Your task to perform on an android device: Open settings on Google Maps Image 0: 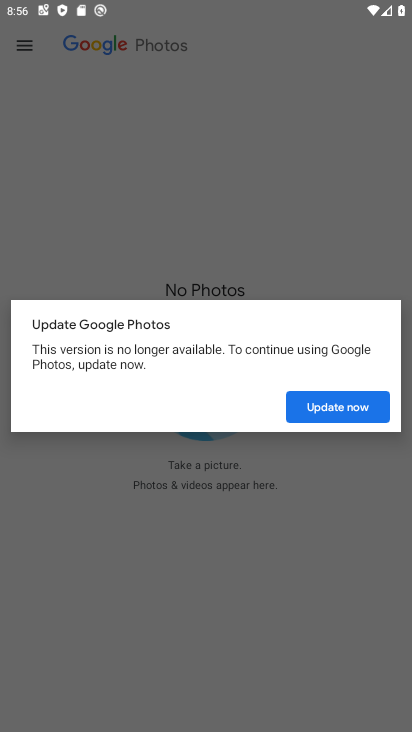
Step 0: press home button
Your task to perform on an android device: Open settings on Google Maps Image 1: 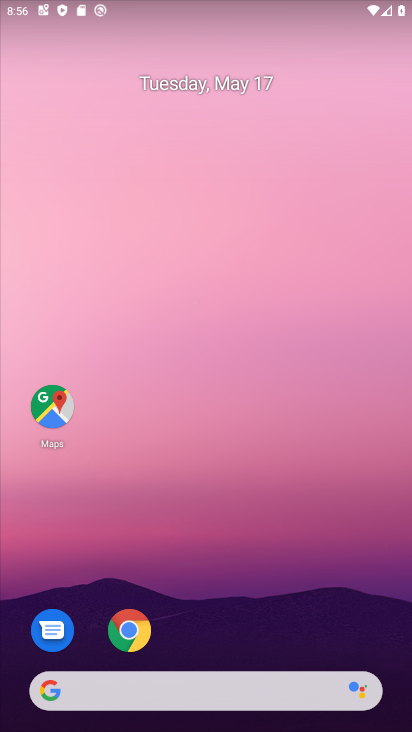
Step 1: click (42, 427)
Your task to perform on an android device: Open settings on Google Maps Image 2: 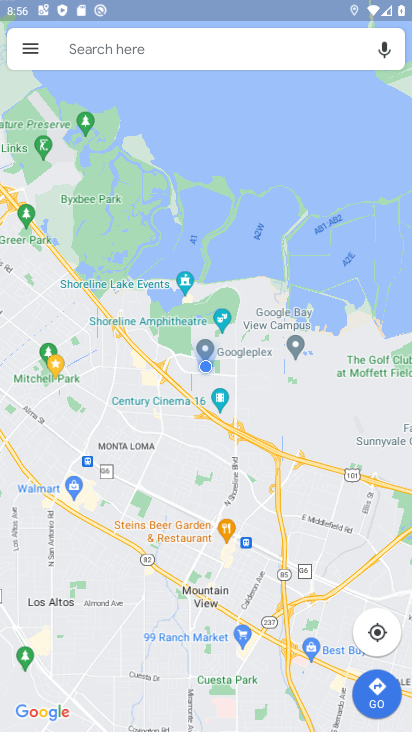
Step 2: click (29, 49)
Your task to perform on an android device: Open settings on Google Maps Image 3: 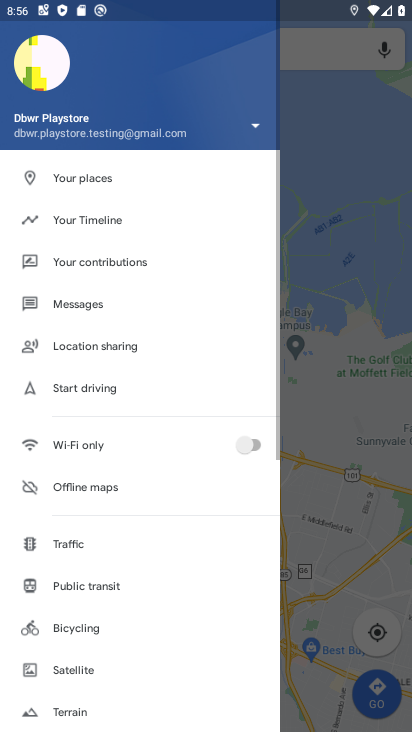
Step 3: drag from (108, 703) to (115, 299)
Your task to perform on an android device: Open settings on Google Maps Image 4: 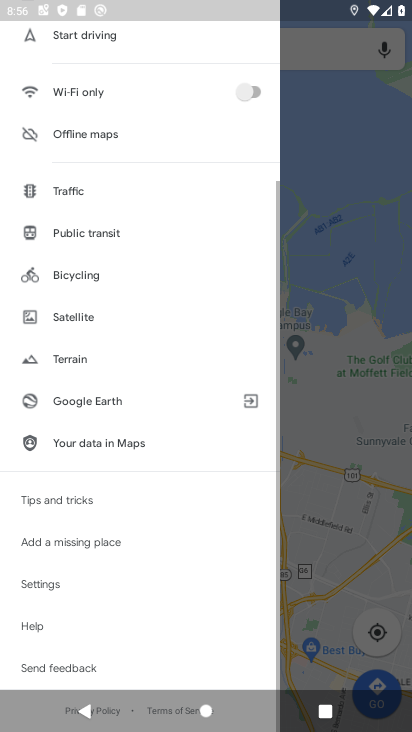
Step 4: click (35, 591)
Your task to perform on an android device: Open settings on Google Maps Image 5: 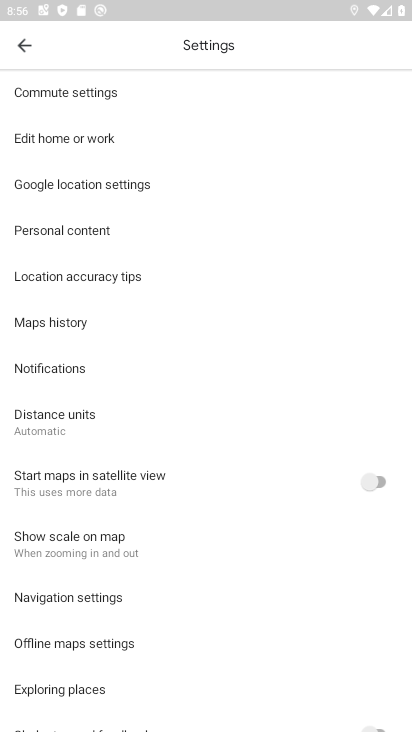
Step 5: task complete